Your task to perform on an android device: add a contact in the contacts app Image 0: 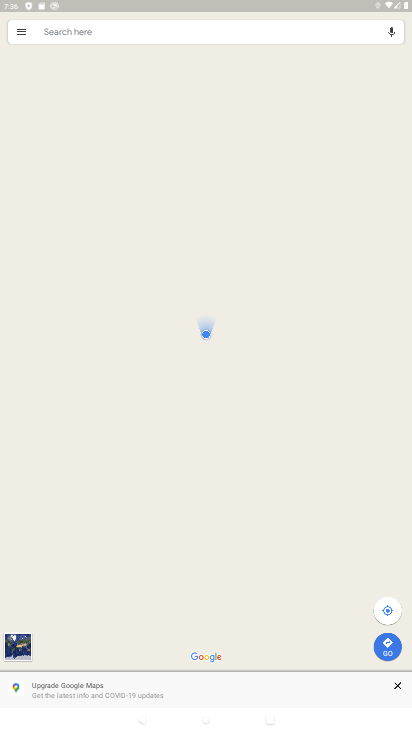
Step 0: press home button
Your task to perform on an android device: add a contact in the contacts app Image 1: 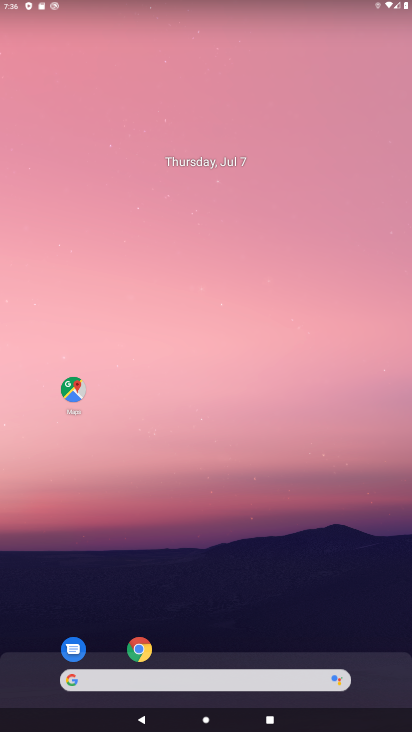
Step 1: drag from (171, 714) to (200, 416)
Your task to perform on an android device: add a contact in the contacts app Image 2: 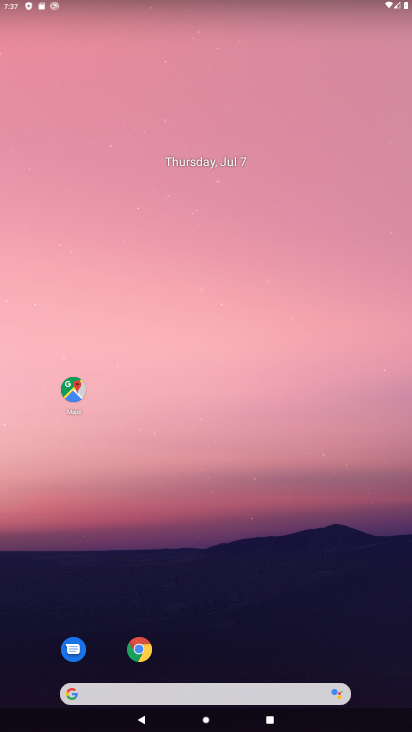
Step 2: drag from (229, 645) to (241, 189)
Your task to perform on an android device: add a contact in the contacts app Image 3: 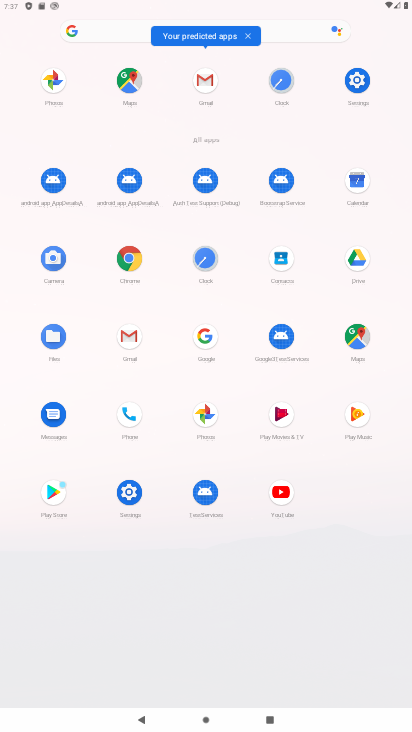
Step 3: click (281, 259)
Your task to perform on an android device: add a contact in the contacts app Image 4: 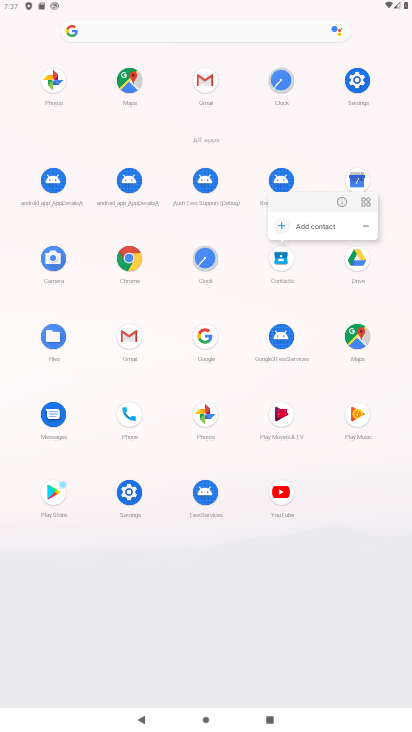
Step 4: click (278, 263)
Your task to perform on an android device: add a contact in the contacts app Image 5: 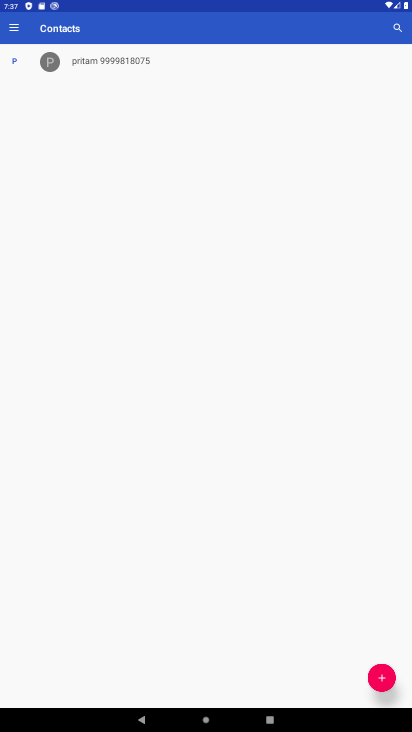
Step 5: click (383, 691)
Your task to perform on an android device: add a contact in the contacts app Image 6: 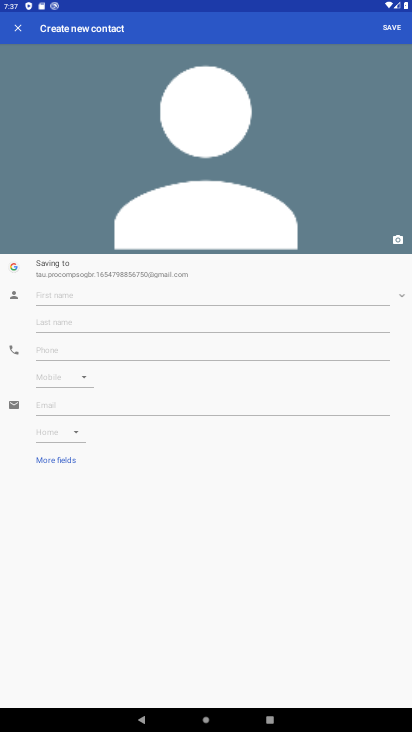
Step 6: click (86, 297)
Your task to perform on an android device: add a contact in the contacts app Image 7: 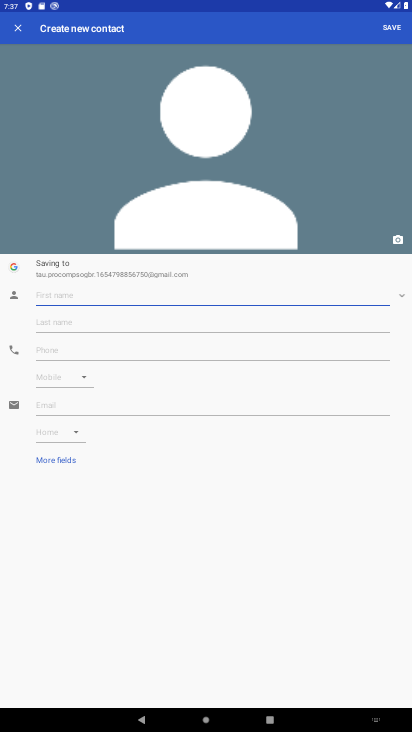
Step 7: type "Yoko"
Your task to perform on an android device: add a contact in the contacts app Image 8: 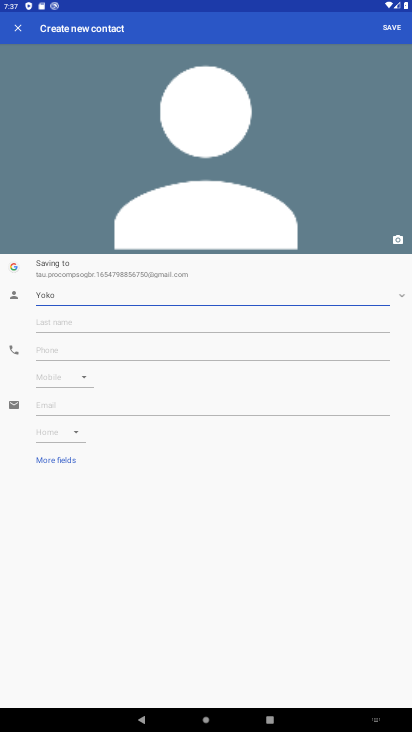
Step 8: click (74, 348)
Your task to perform on an android device: add a contact in the contacts app Image 9: 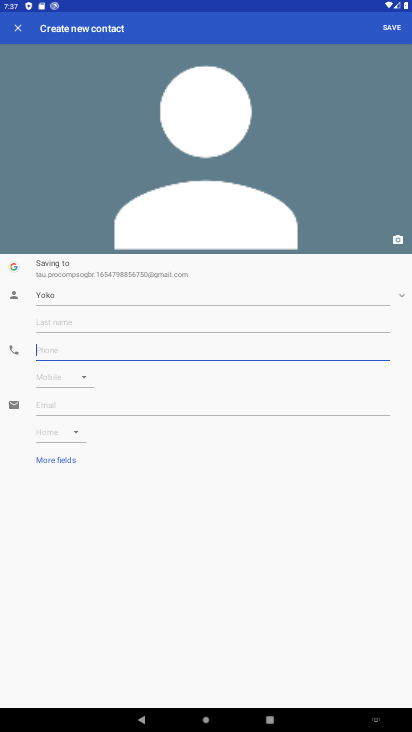
Step 9: type "98989009"
Your task to perform on an android device: add a contact in the contacts app Image 10: 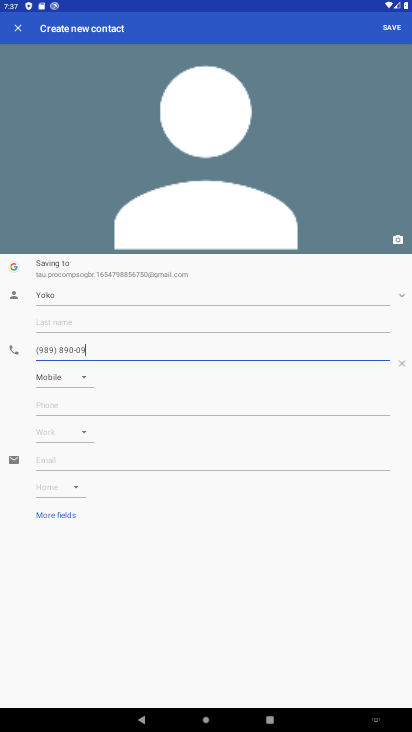
Step 10: click (390, 35)
Your task to perform on an android device: add a contact in the contacts app Image 11: 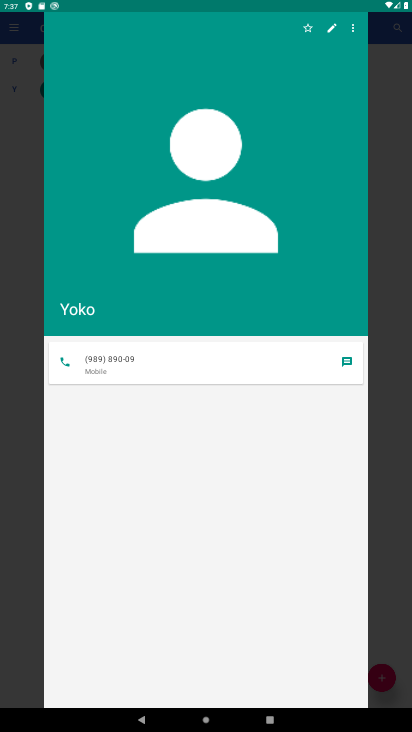
Step 11: task complete